Your task to perform on an android device: set the stopwatch Image 0: 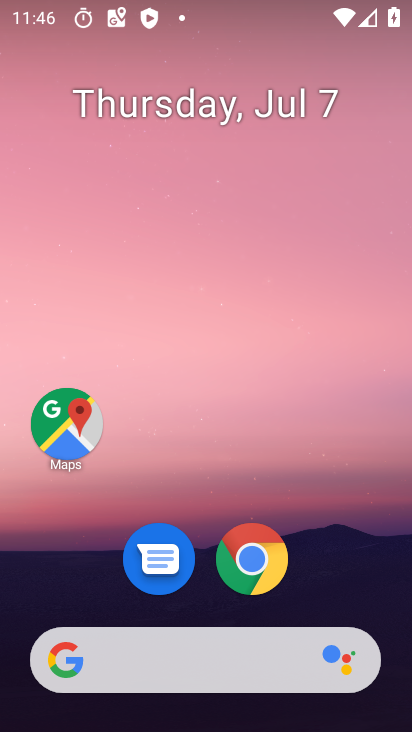
Step 0: drag from (364, 573) to (366, 70)
Your task to perform on an android device: set the stopwatch Image 1: 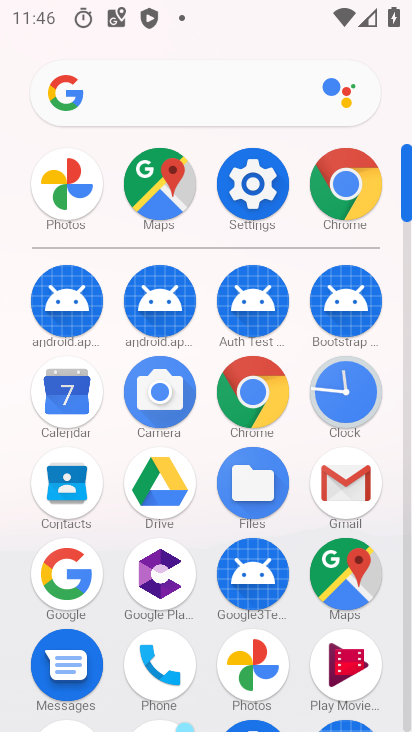
Step 1: click (345, 398)
Your task to perform on an android device: set the stopwatch Image 2: 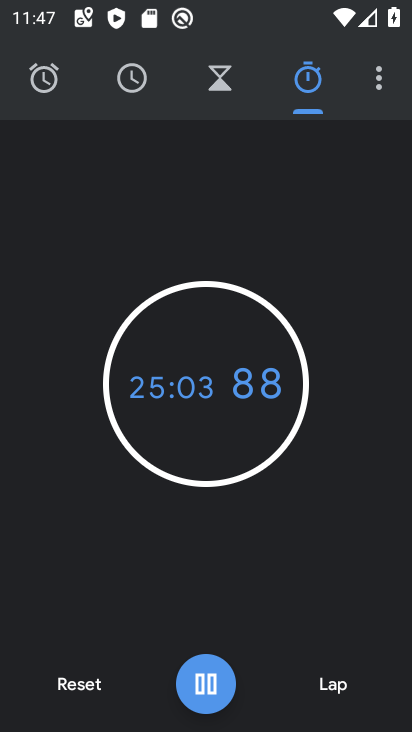
Step 2: task complete